Your task to perform on an android device: Play the last video I watched on Youtube Image 0: 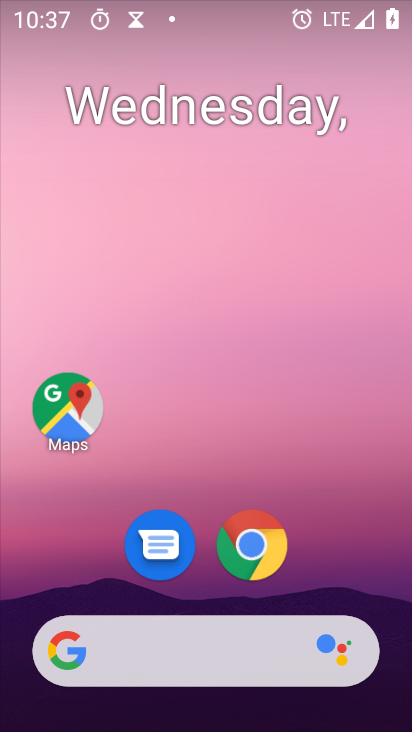
Step 0: press home button
Your task to perform on an android device: Play the last video I watched on Youtube Image 1: 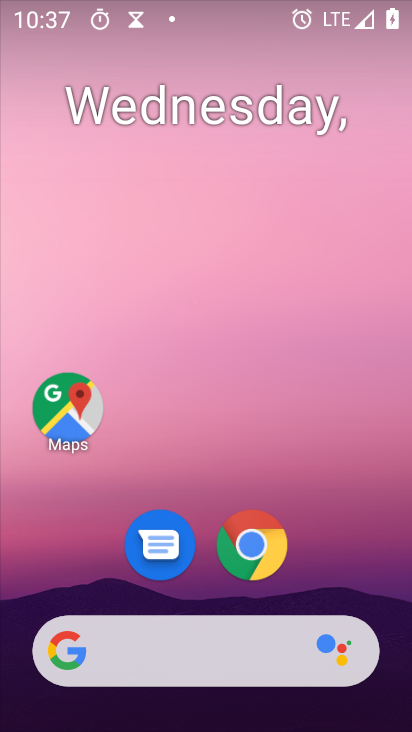
Step 1: drag from (194, 649) to (295, 246)
Your task to perform on an android device: Play the last video I watched on Youtube Image 2: 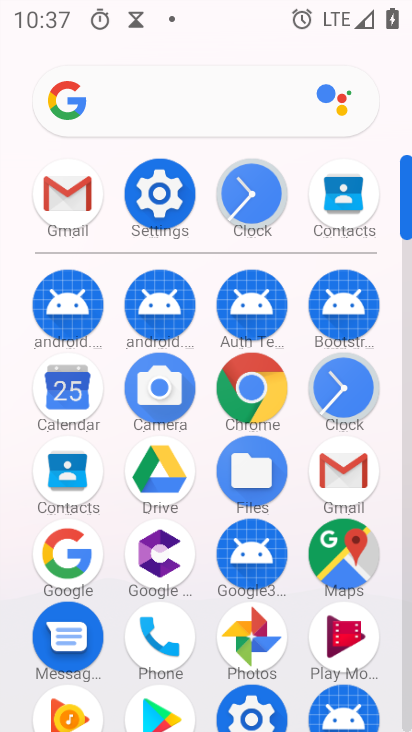
Step 2: drag from (216, 597) to (327, 181)
Your task to perform on an android device: Play the last video I watched on Youtube Image 3: 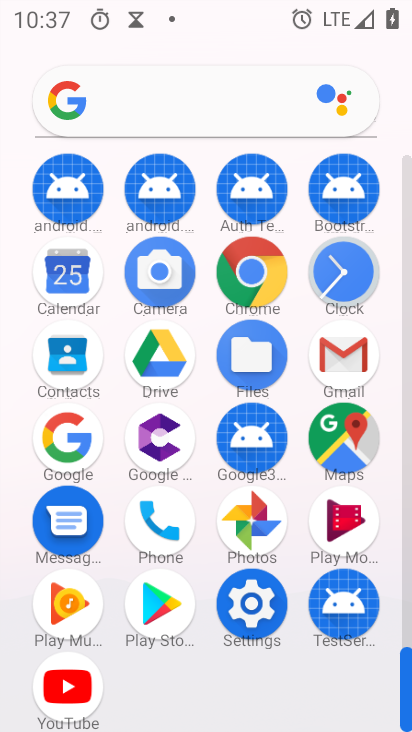
Step 3: click (76, 694)
Your task to perform on an android device: Play the last video I watched on Youtube Image 4: 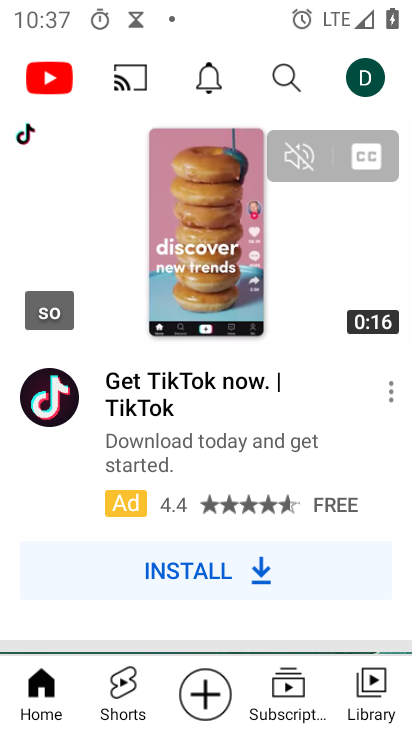
Step 4: click (353, 687)
Your task to perform on an android device: Play the last video I watched on Youtube Image 5: 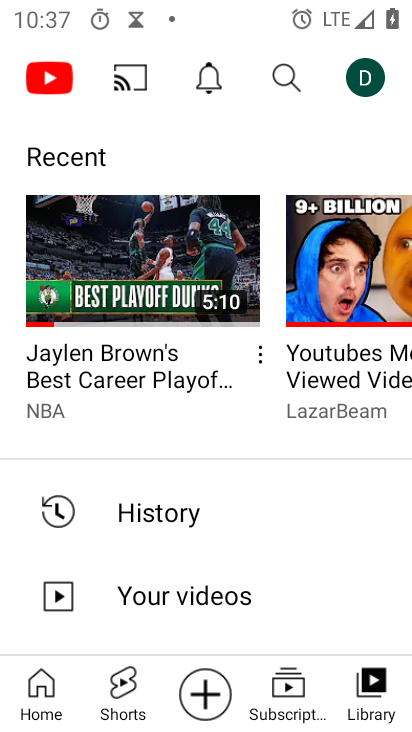
Step 5: click (173, 262)
Your task to perform on an android device: Play the last video I watched on Youtube Image 6: 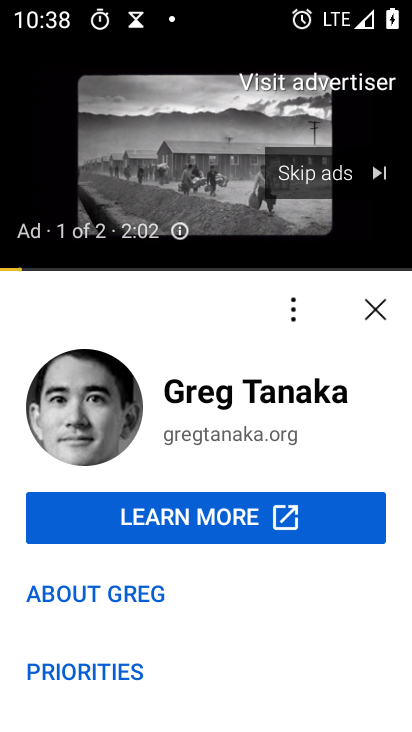
Step 6: click (338, 170)
Your task to perform on an android device: Play the last video I watched on Youtube Image 7: 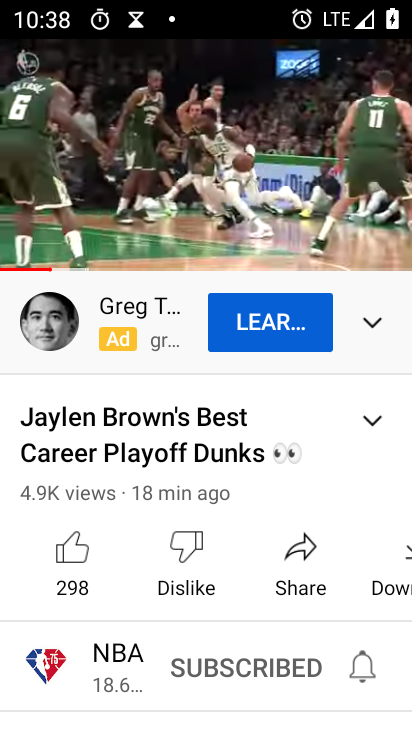
Step 7: click (200, 139)
Your task to perform on an android device: Play the last video I watched on Youtube Image 8: 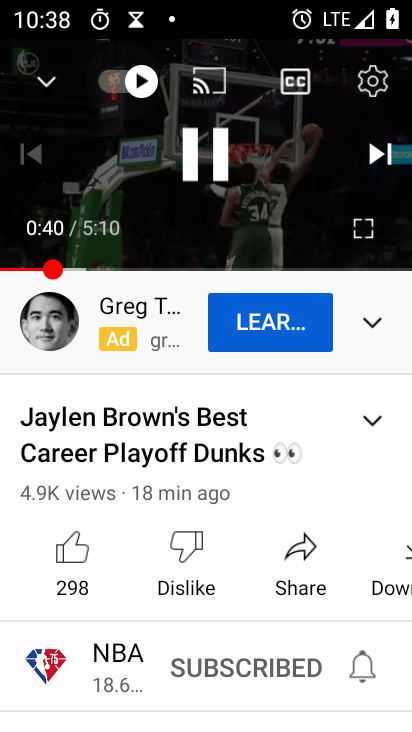
Step 8: click (200, 138)
Your task to perform on an android device: Play the last video I watched on Youtube Image 9: 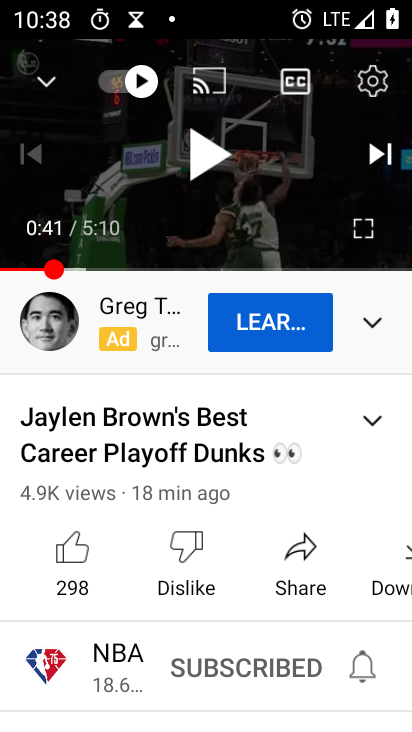
Step 9: task complete